Your task to perform on an android device: Go to Maps Image 0: 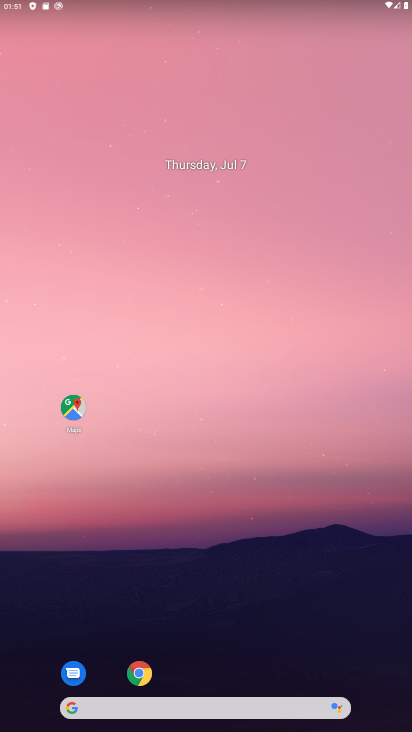
Step 0: click (80, 411)
Your task to perform on an android device: Go to Maps Image 1: 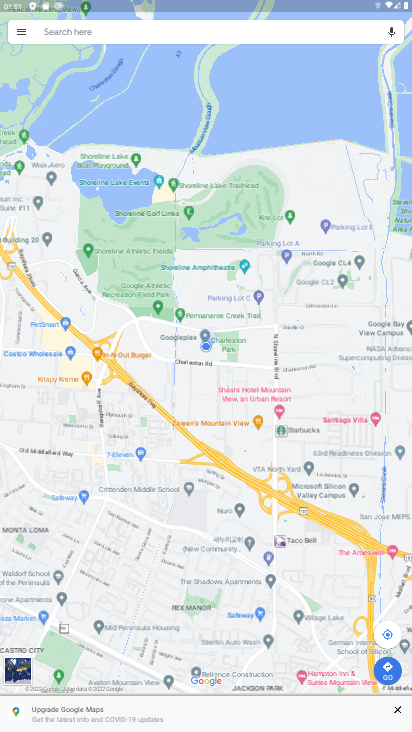
Step 1: task complete